Your task to perform on an android device: turn on airplane mode Image 0: 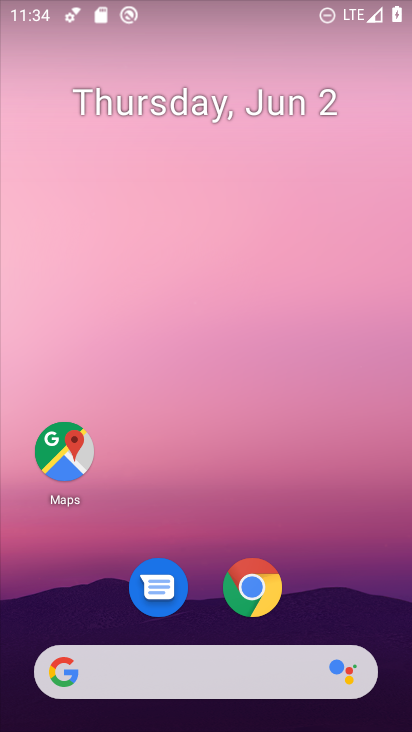
Step 0: drag from (365, 625) to (194, 103)
Your task to perform on an android device: turn on airplane mode Image 1: 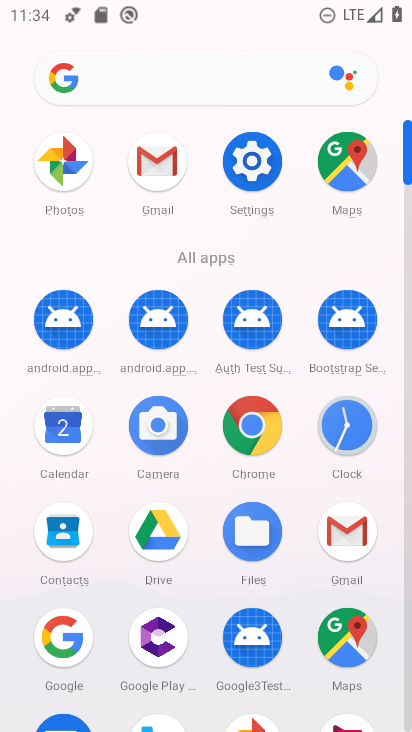
Step 1: click (259, 164)
Your task to perform on an android device: turn on airplane mode Image 2: 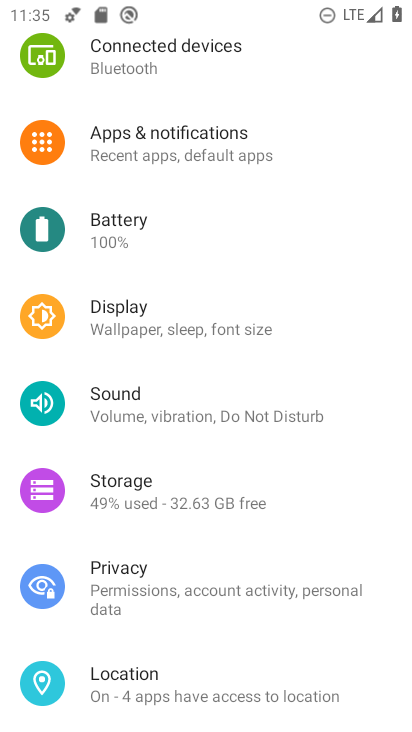
Step 2: drag from (234, 131) to (260, 622)
Your task to perform on an android device: turn on airplane mode Image 3: 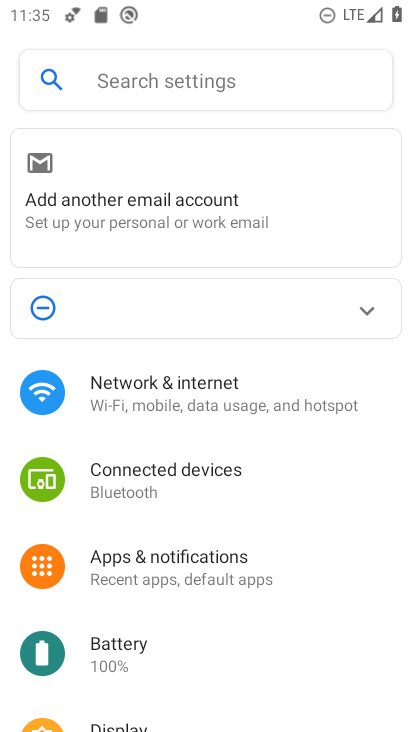
Step 3: click (197, 381)
Your task to perform on an android device: turn on airplane mode Image 4: 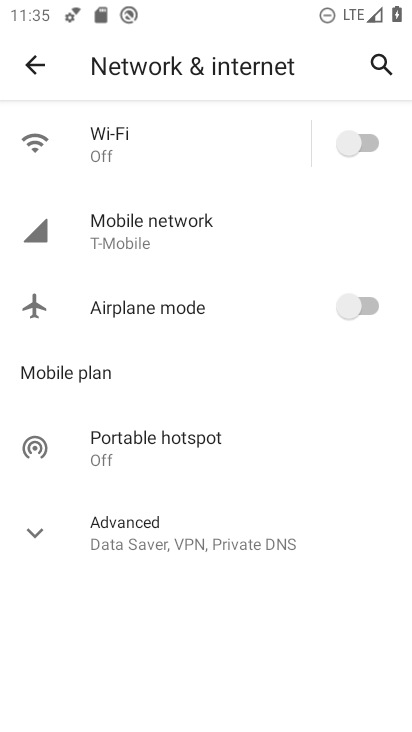
Step 4: click (355, 325)
Your task to perform on an android device: turn on airplane mode Image 5: 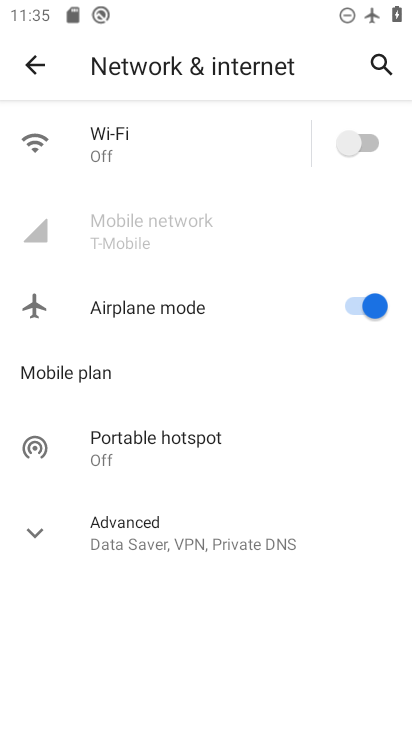
Step 5: task complete